Your task to perform on an android device: toggle show notifications on the lock screen Image 0: 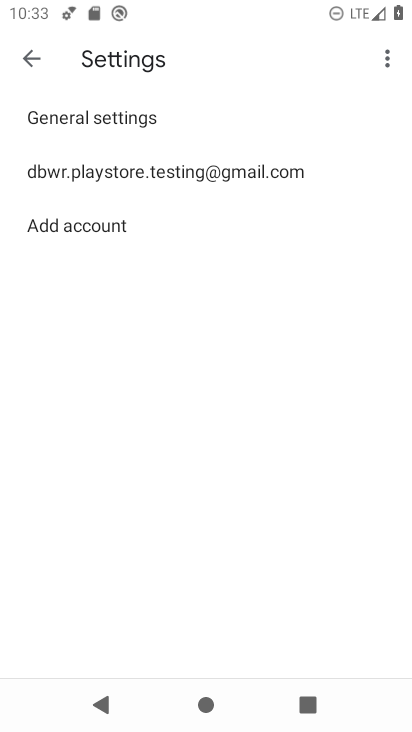
Step 0: press home button
Your task to perform on an android device: toggle show notifications on the lock screen Image 1: 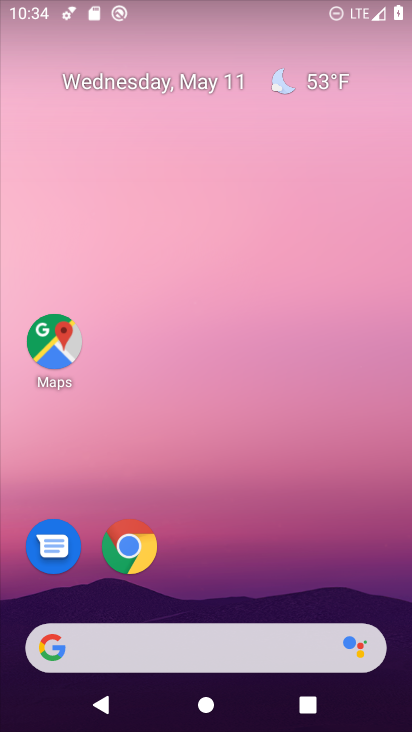
Step 1: drag from (397, 619) to (280, 91)
Your task to perform on an android device: toggle show notifications on the lock screen Image 2: 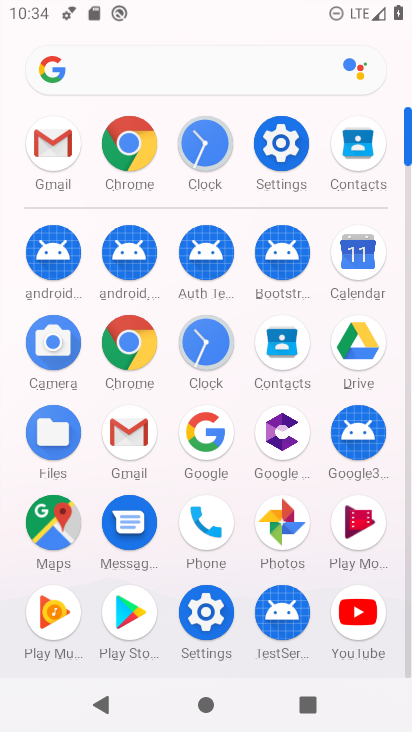
Step 2: click (276, 152)
Your task to perform on an android device: toggle show notifications on the lock screen Image 3: 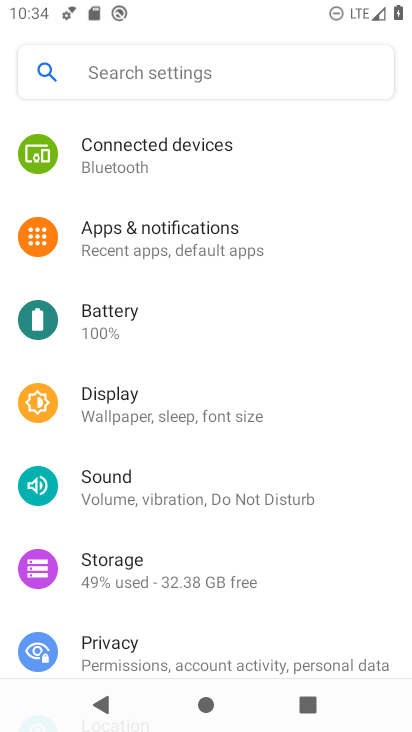
Step 3: click (212, 261)
Your task to perform on an android device: toggle show notifications on the lock screen Image 4: 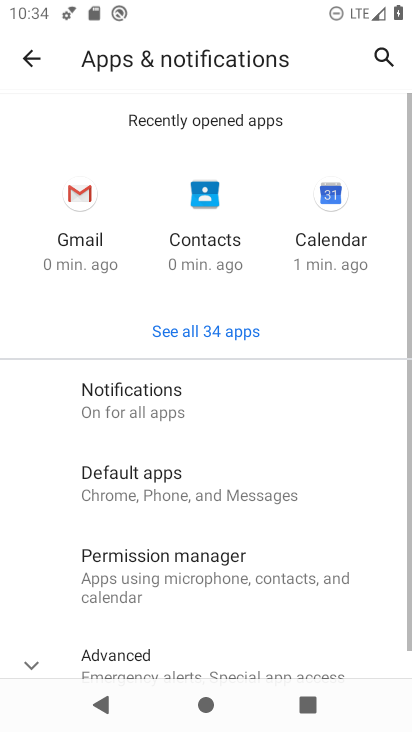
Step 4: click (152, 404)
Your task to perform on an android device: toggle show notifications on the lock screen Image 5: 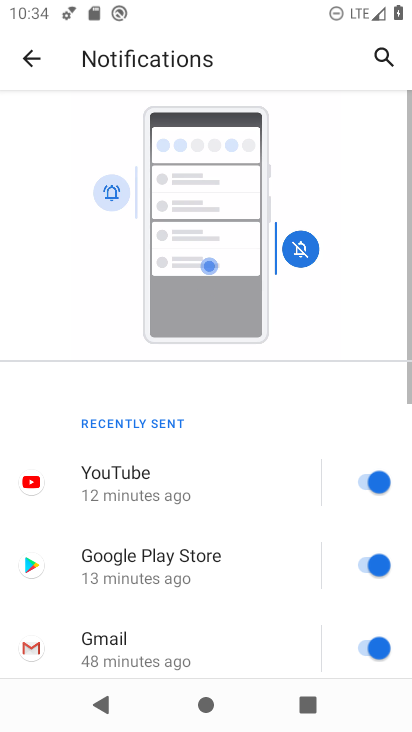
Step 5: drag from (231, 610) to (202, 39)
Your task to perform on an android device: toggle show notifications on the lock screen Image 6: 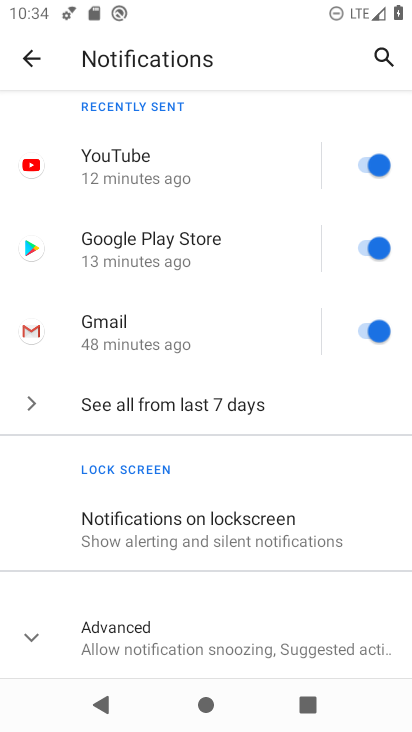
Step 6: click (197, 520)
Your task to perform on an android device: toggle show notifications on the lock screen Image 7: 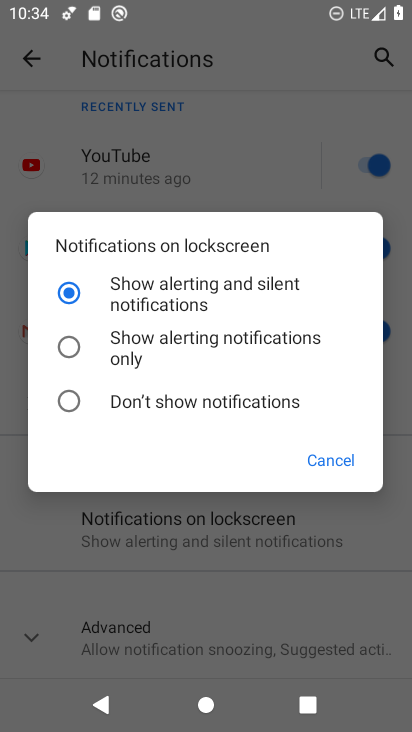
Step 7: task complete